Your task to perform on an android device: Open Chrome and go to settings Image 0: 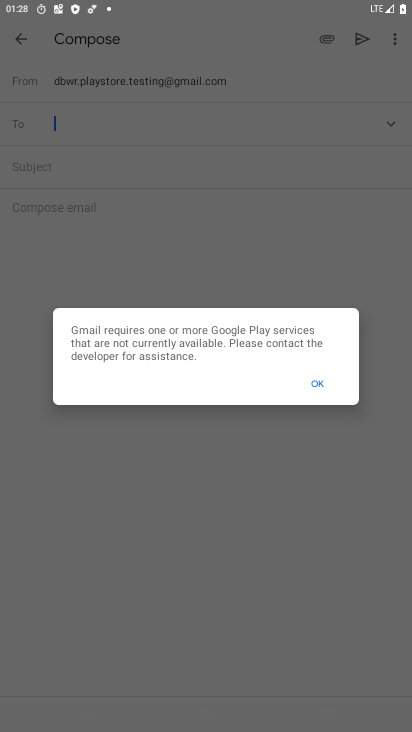
Step 0: drag from (360, 574) to (379, 542)
Your task to perform on an android device: Open Chrome and go to settings Image 1: 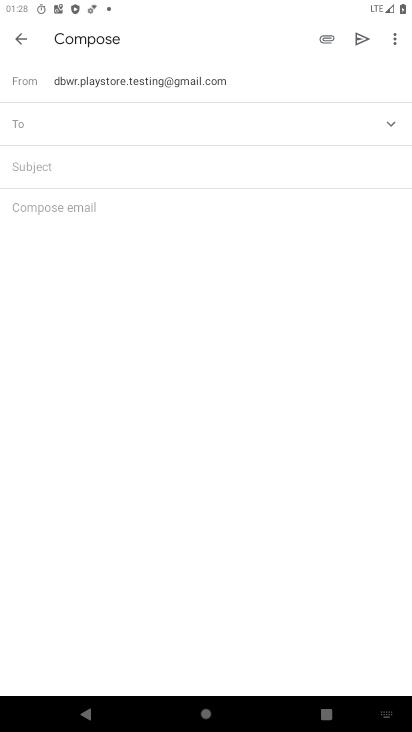
Step 1: press home button
Your task to perform on an android device: Open Chrome and go to settings Image 2: 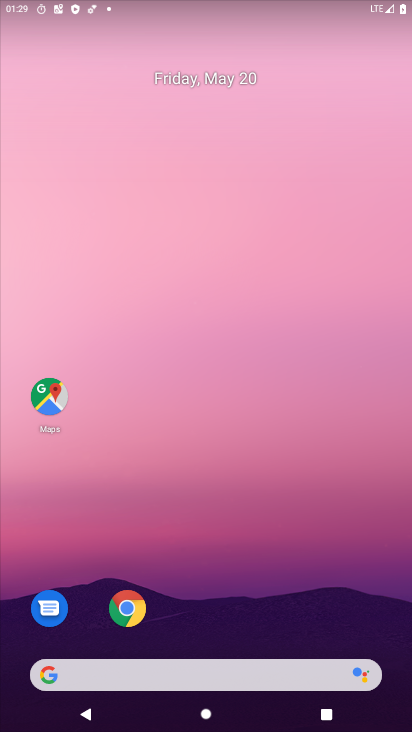
Step 2: drag from (322, 489) to (231, 79)
Your task to perform on an android device: Open Chrome and go to settings Image 3: 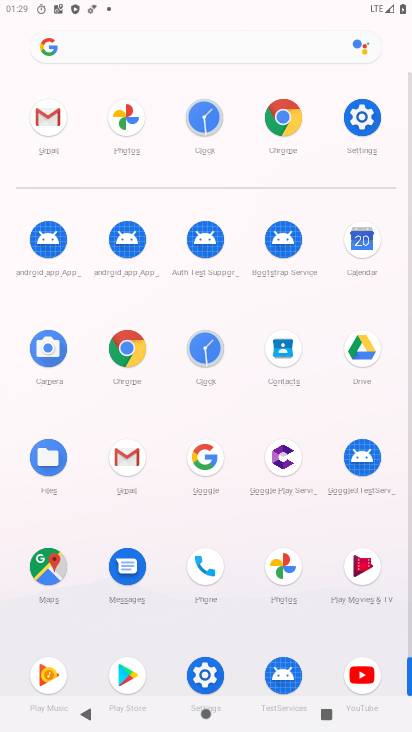
Step 3: click (142, 341)
Your task to perform on an android device: Open Chrome and go to settings Image 4: 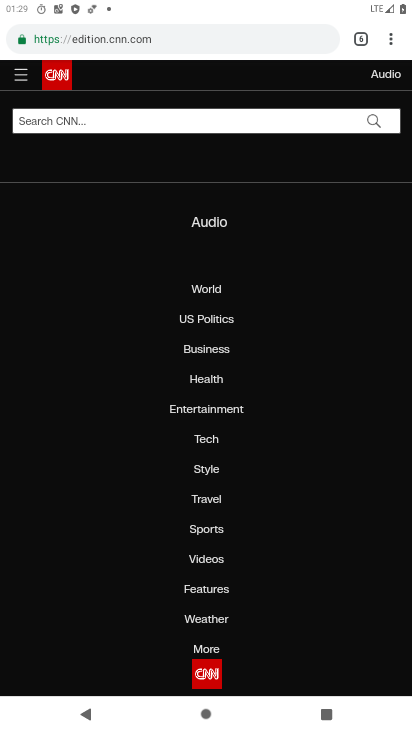
Step 4: task complete